Your task to perform on an android device: install app "Flipkart Online Shopping App" Image 0: 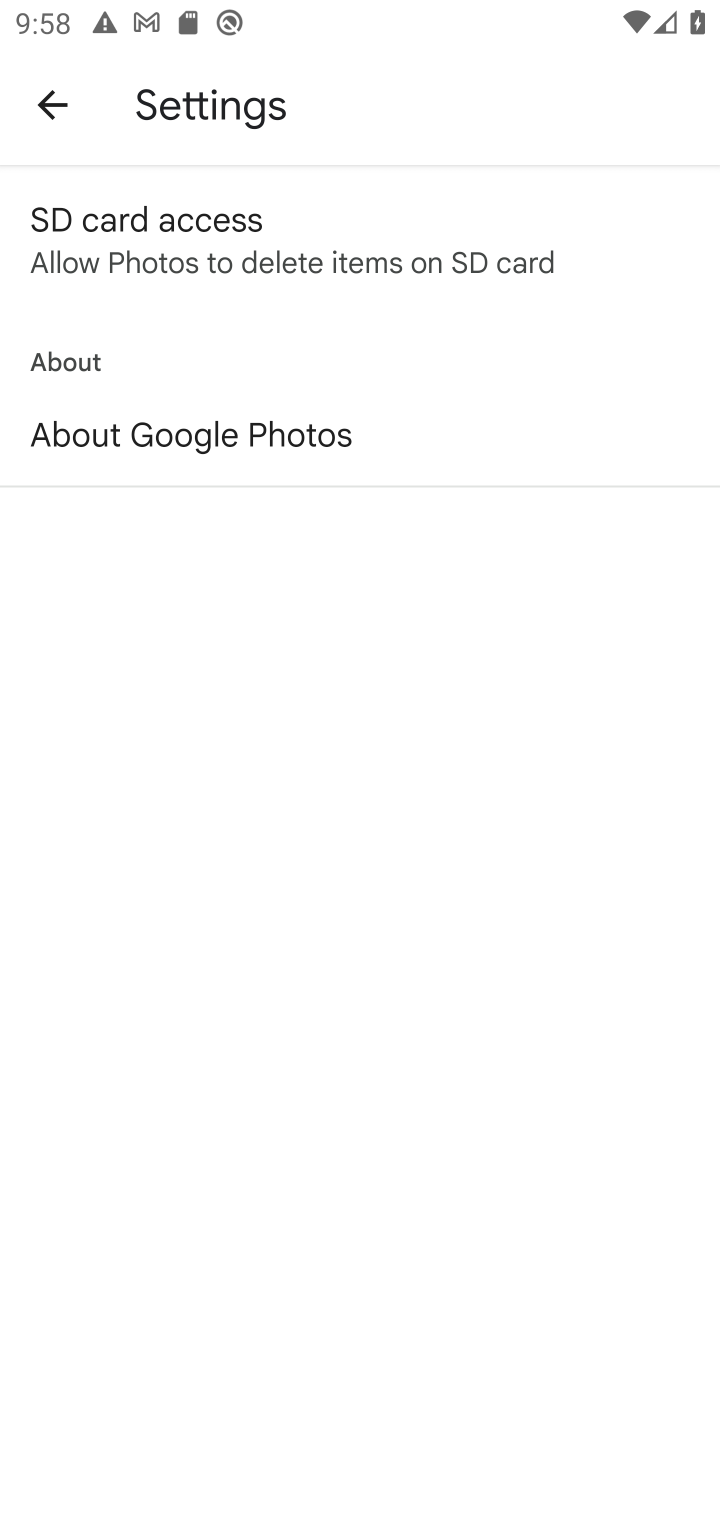
Step 0: press home button
Your task to perform on an android device: install app "Flipkart Online Shopping App" Image 1: 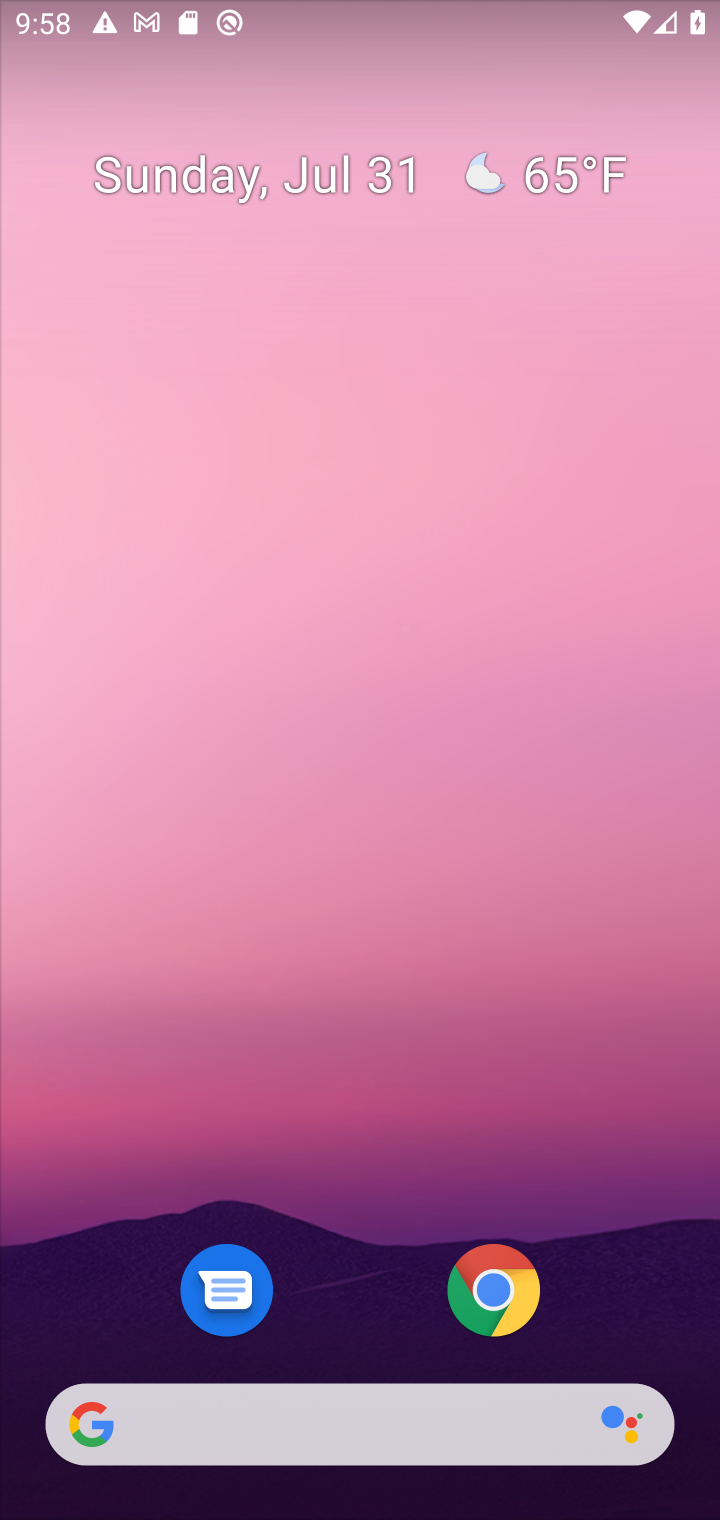
Step 1: drag from (626, 1126) to (607, 116)
Your task to perform on an android device: install app "Flipkart Online Shopping App" Image 2: 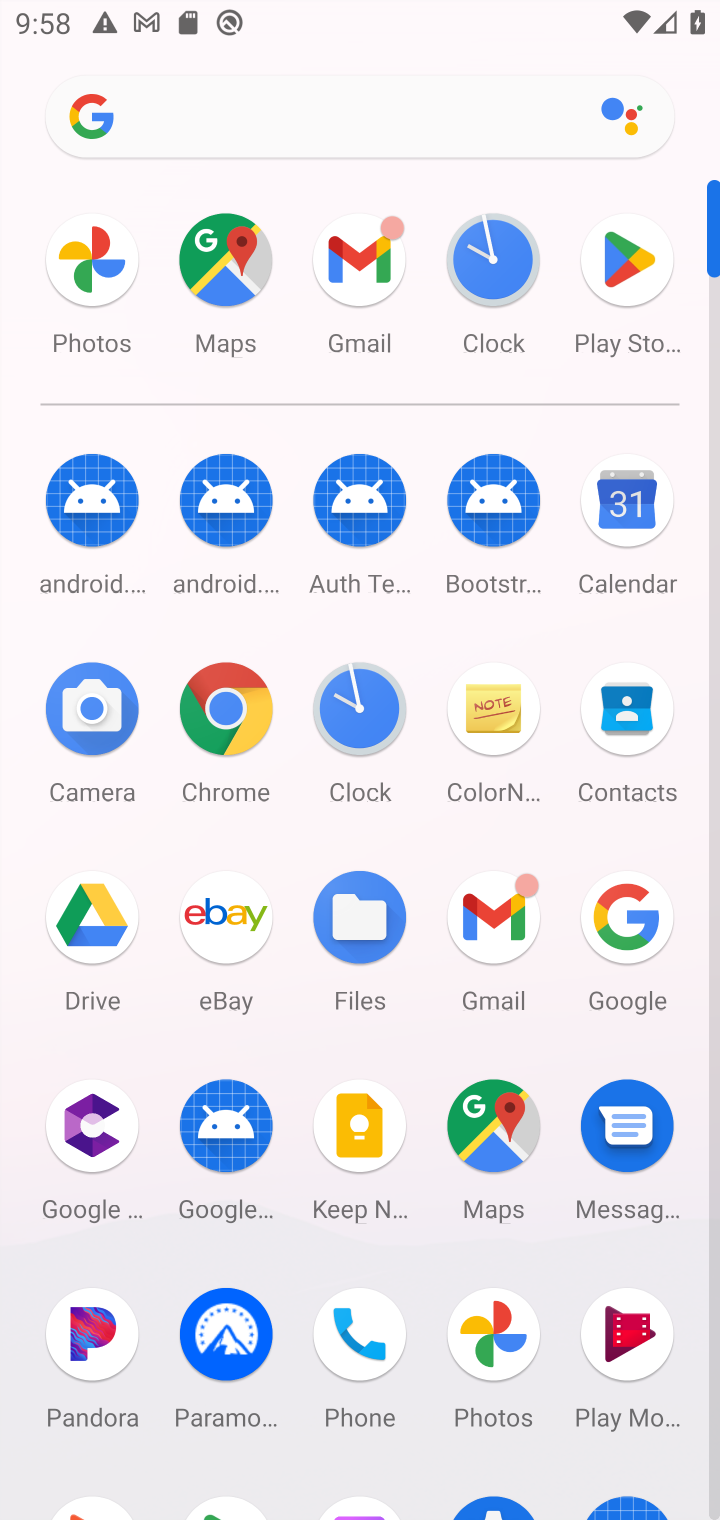
Step 2: click (628, 272)
Your task to perform on an android device: install app "Flipkart Online Shopping App" Image 3: 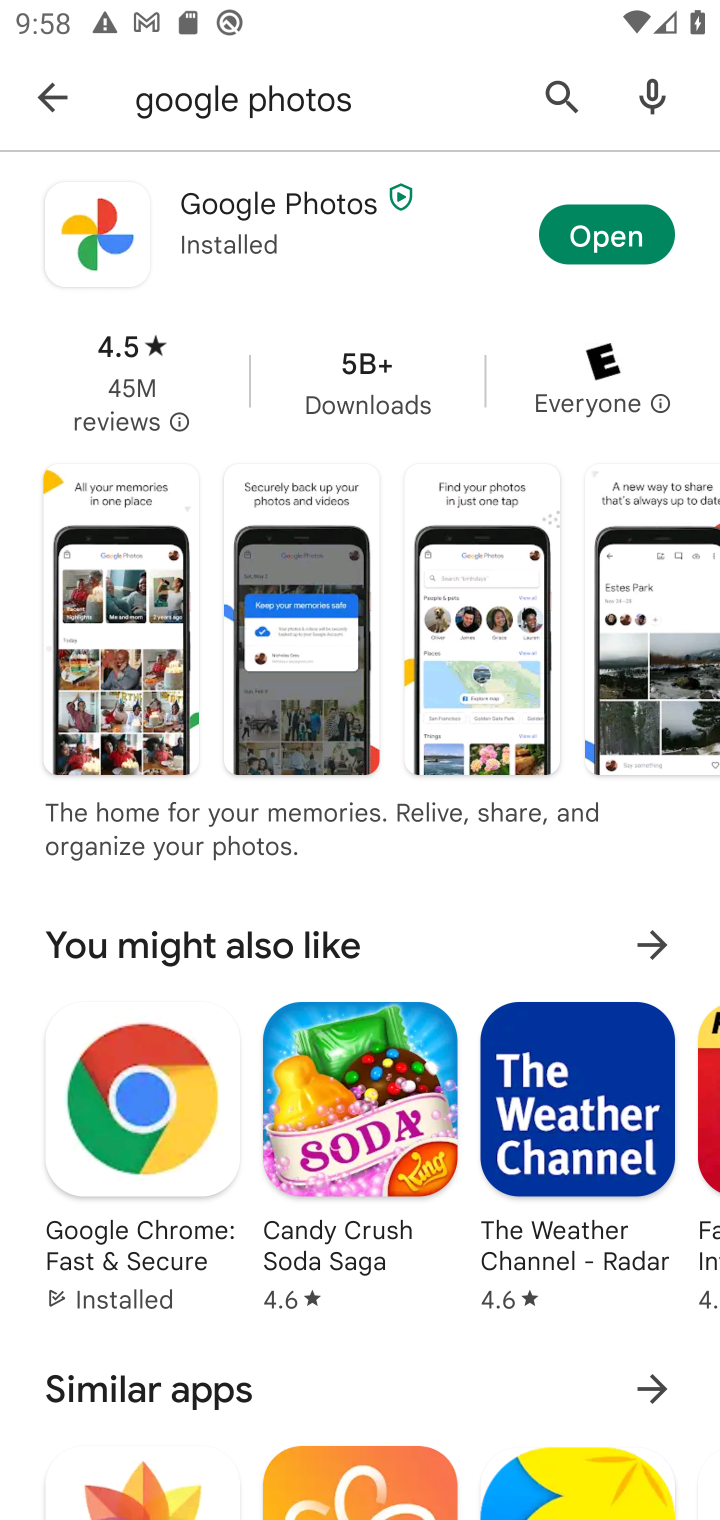
Step 3: click (558, 88)
Your task to perform on an android device: install app "Flipkart Online Shopping App" Image 4: 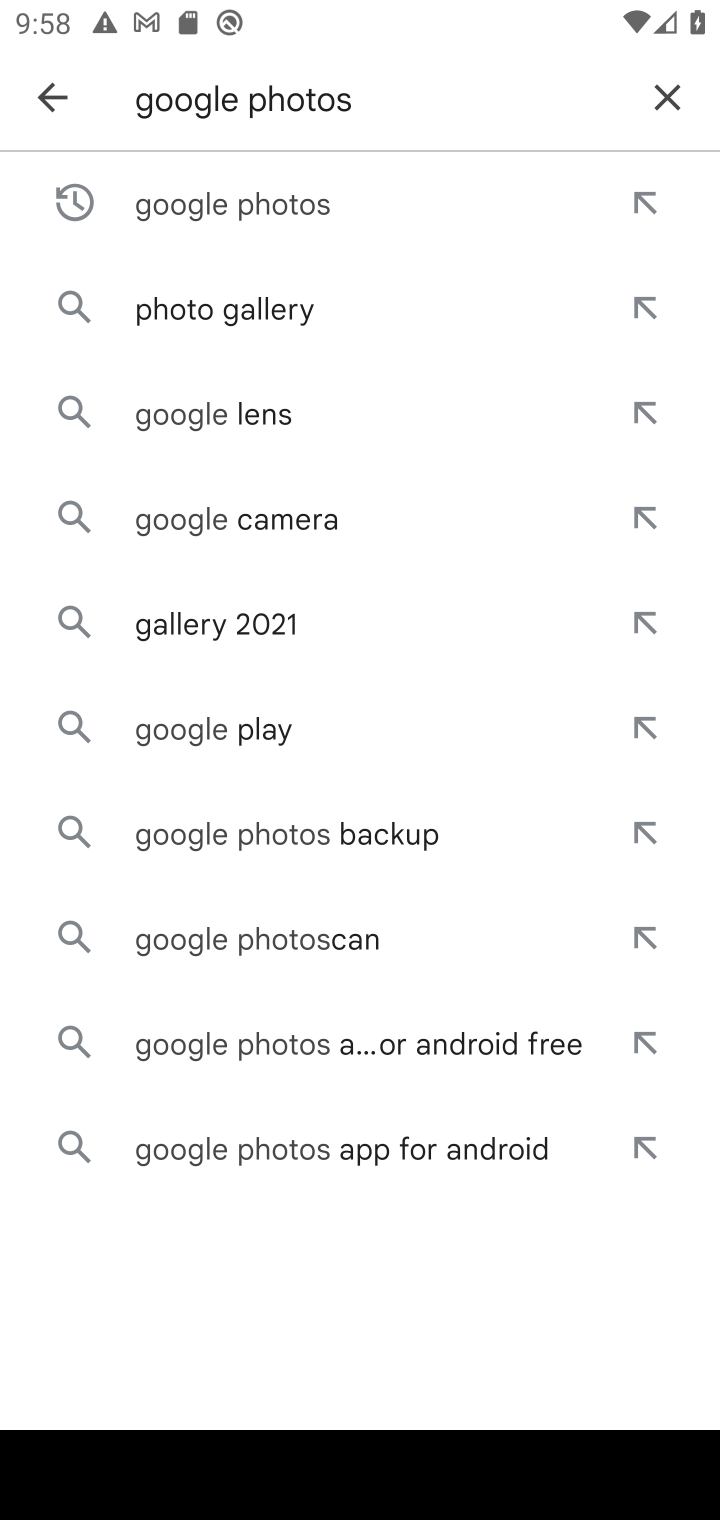
Step 4: click (680, 101)
Your task to perform on an android device: install app "Flipkart Online Shopping App" Image 5: 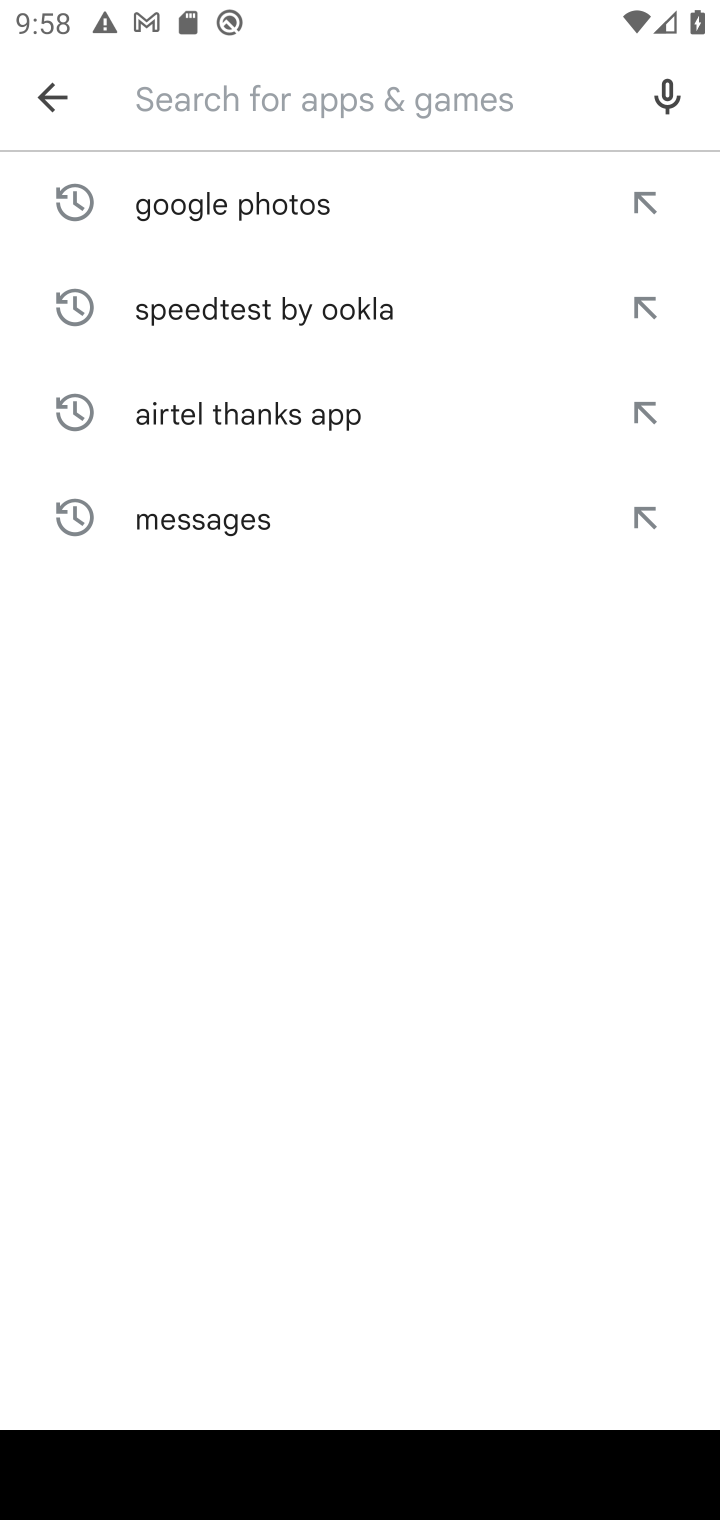
Step 5: type "Flipkart Online Shopping App"
Your task to perform on an android device: install app "Flipkart Online Shopping App" Image 6: 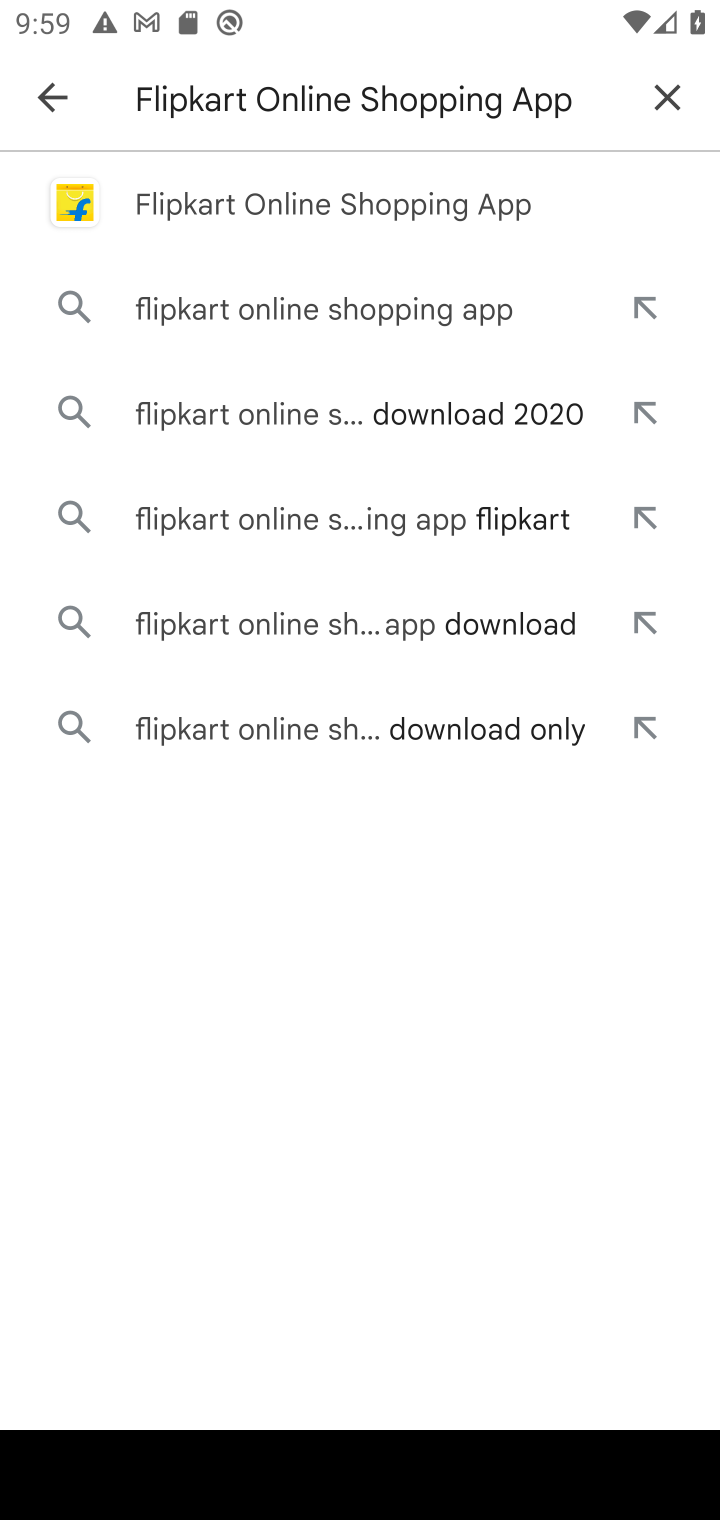
Step 6: click (297, 204)
Your task to perform on an android device: install app "Flipkart Online Shopping App" Image 7: 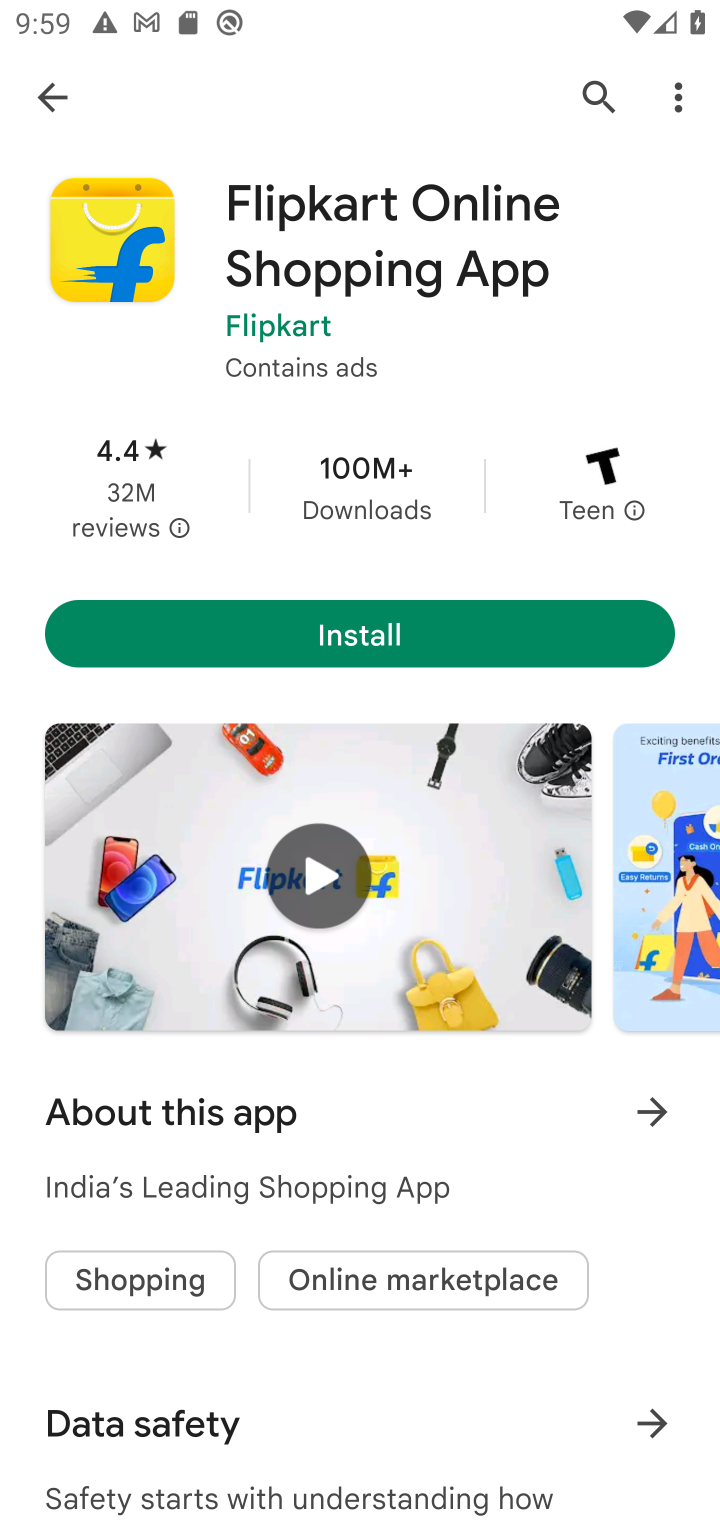
Step 7: click (286, 648)
Your task to perform on an android device: install app "Flipkart Online Shopping App" Image 8: 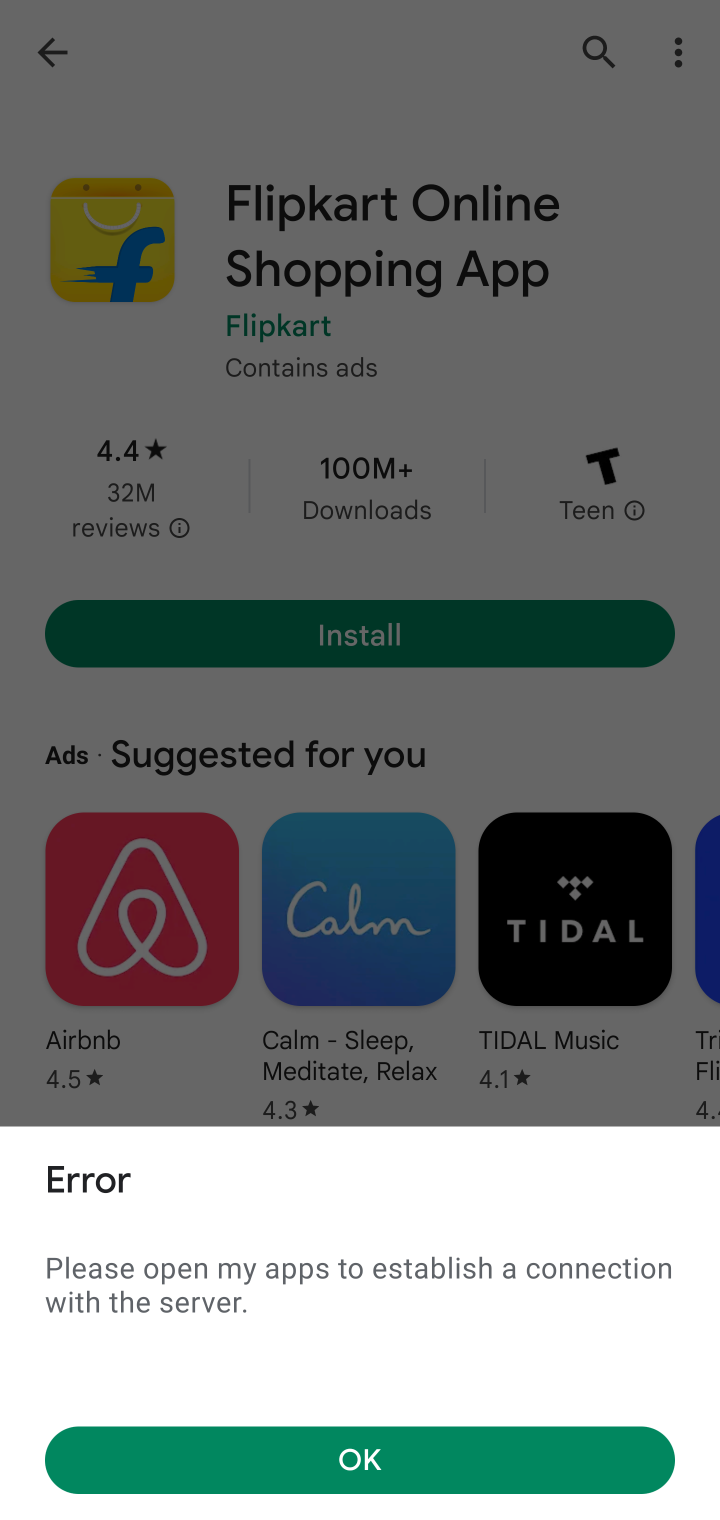
Step 8: task complete